Your task to perform on an android device: allow notifications from all sites in the chrome app Image 0: 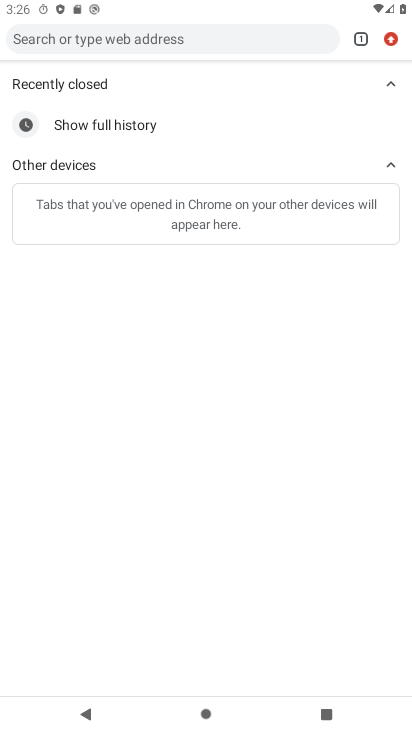
Step 0: click (386, 36)
Your task to perform on an android device: allow notifications from all sites in the chrome app Image 1: 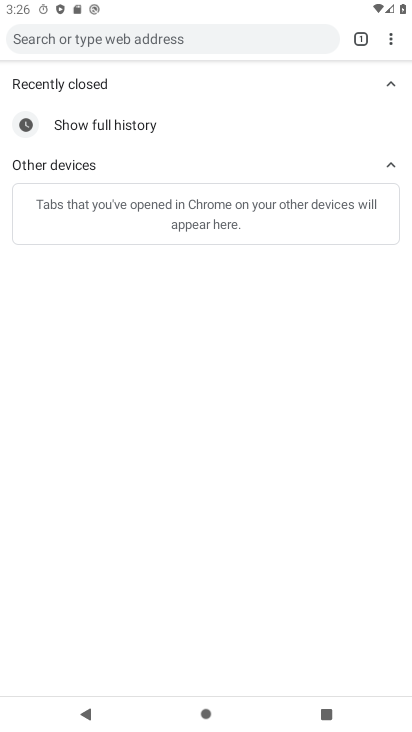
Step 1: click (397, 38)
Your task to perform on an android device: allow notifications from all sites in the chrome app Image 2: 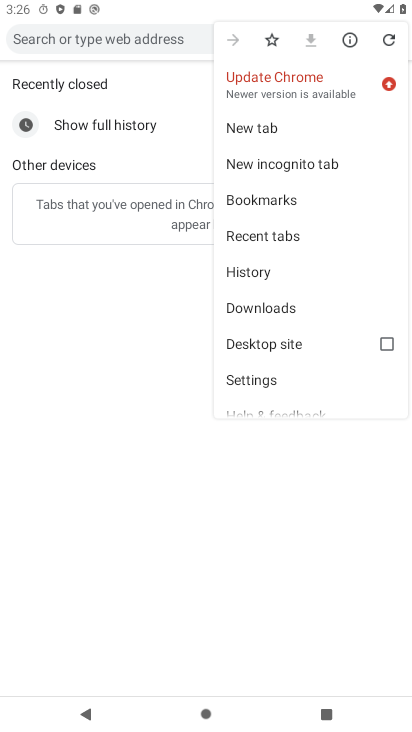
Step 2: click (260, 376)
Your task to perform on an android device: allow notifications from all sites in the chrome app Image 3: 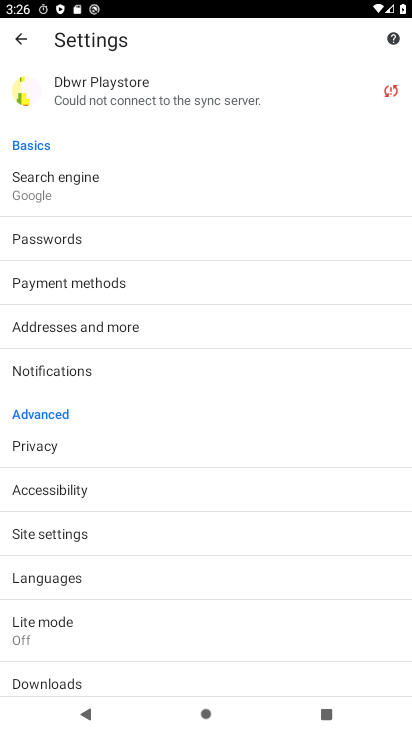
Step 3: click (89, 373)
Your task to perform on an android device: allow notifications from all sites in the chrome app Image 4: 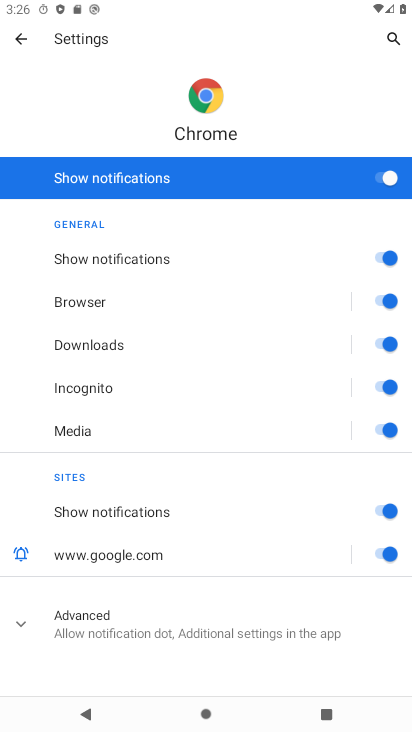
Step 4: task complete